Your task to perform on an android device: Open Android settings Image 0: 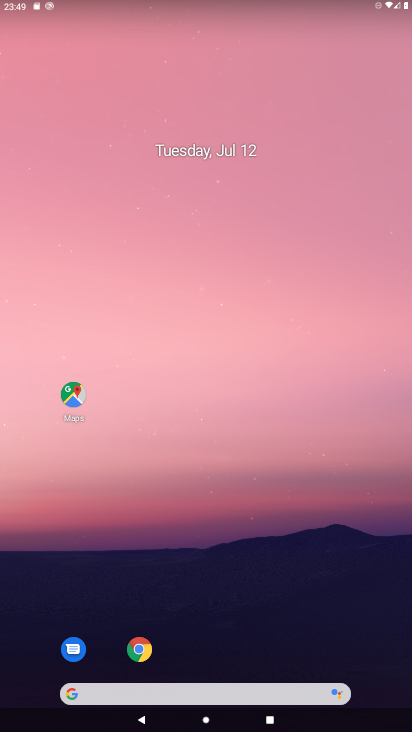
Step 0: drag from (381, 664) to (324, 125)
Your task to perform on an android device: Open Android settings Image 1: 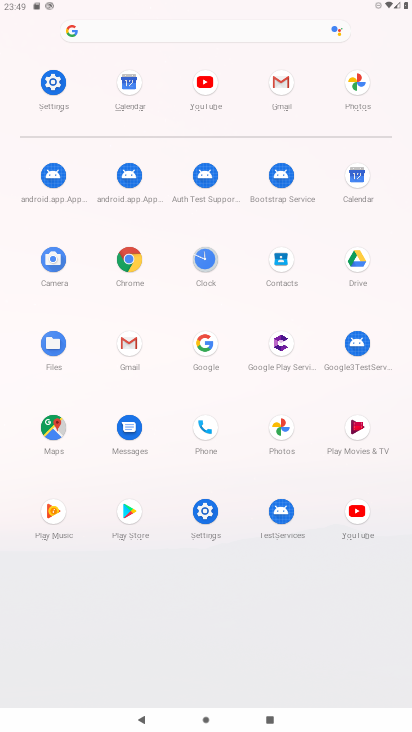
Step 1: click (204, 510)
Your task to perform on an android device: Open Android settings Image 2: 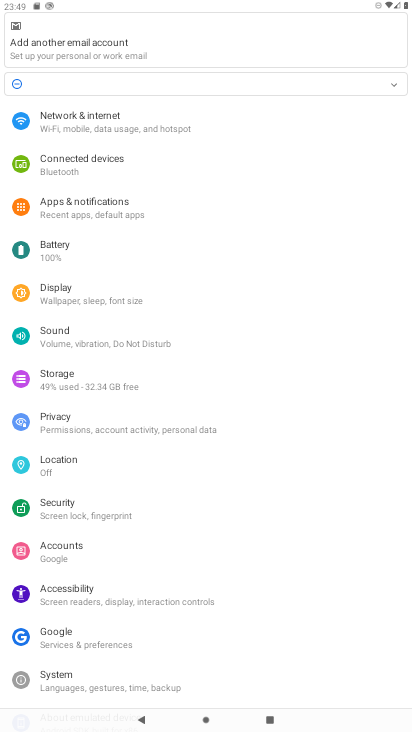
Step 2: click (58, 587)
Your task to perform on an android device: Open Android settings Image 3: 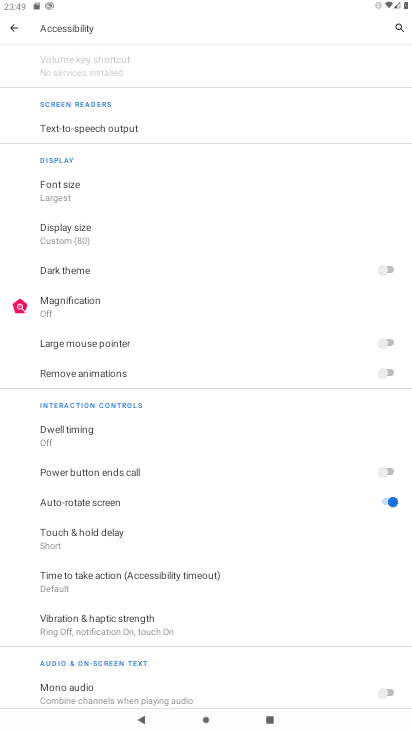
Step 3: task complete